Your task to perform on an android device: Show me popular videos on Youtube Image 0: 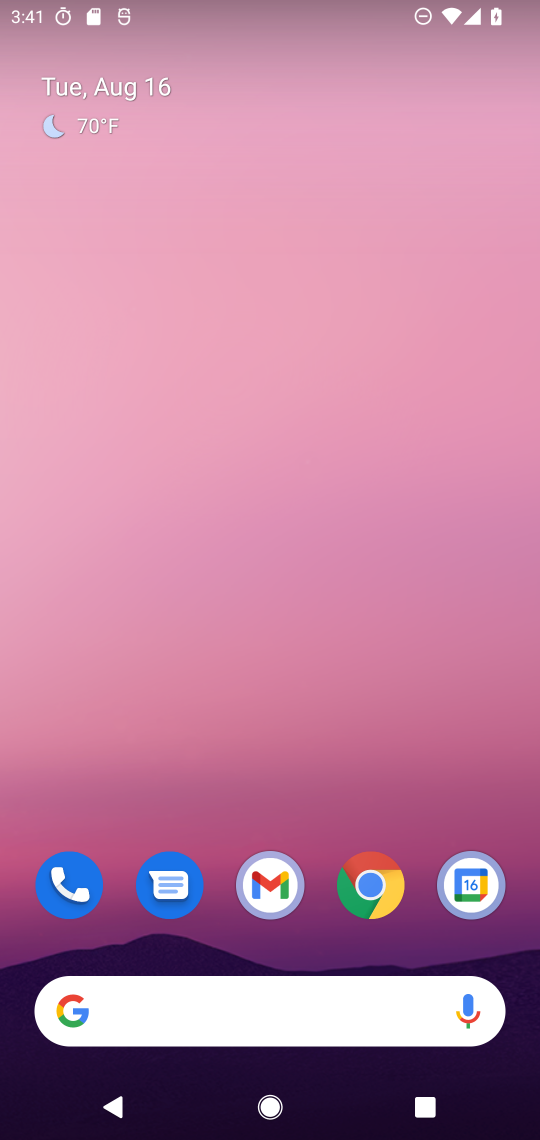
Step 0: drag from (216, 896) to (247, 435)
Your task to perform on an android device: Show me popular videos on Youtube Image 1: 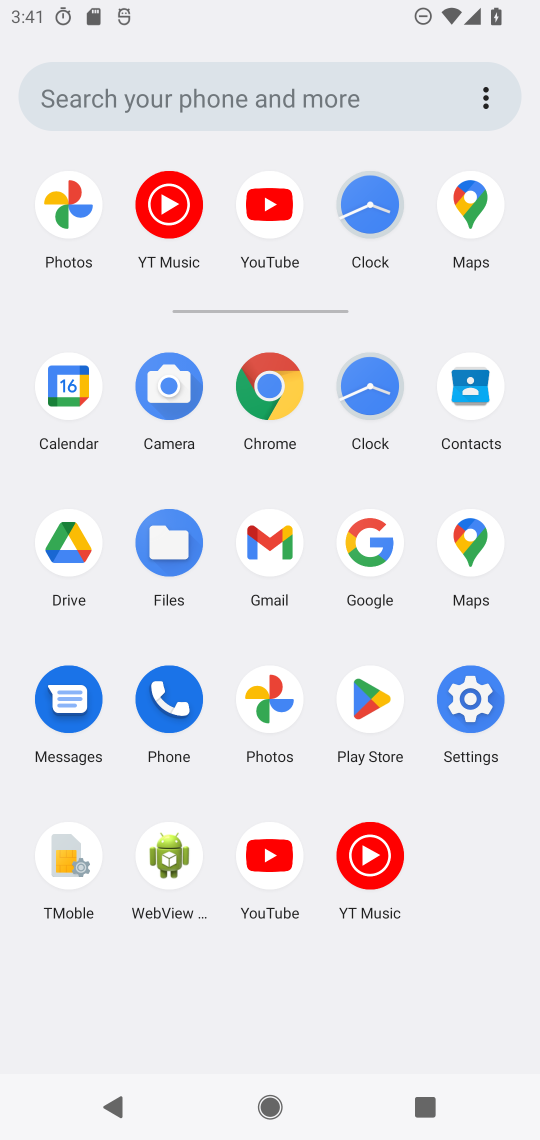
Step 1: click (270, 846)
Your task to perform on an android device: Show me popular videos on Youtube Image 2: 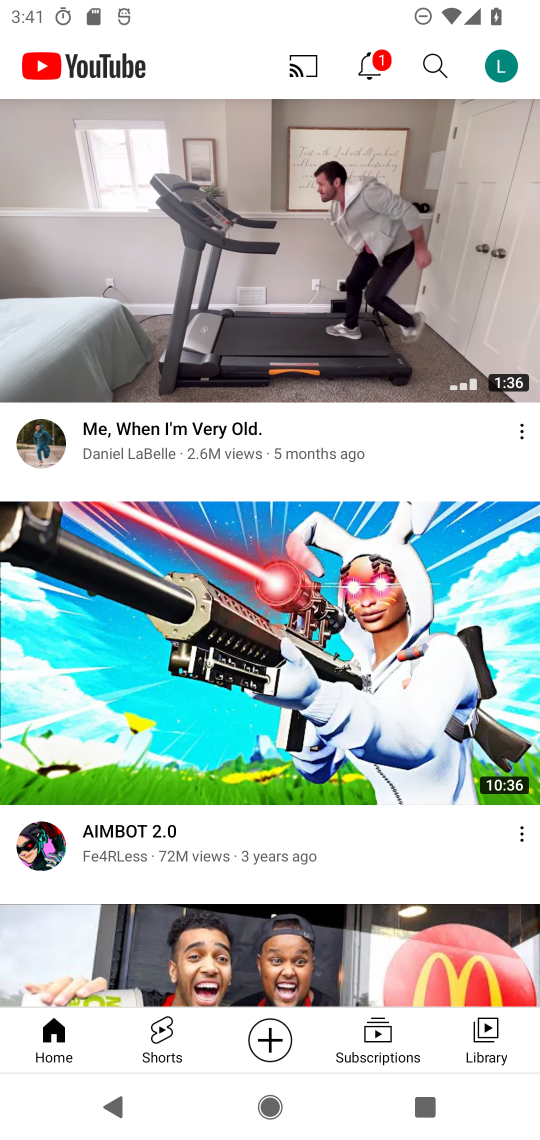
Step 2: click (428, 60)
Your task to perform on an android device: Show me popular videos on Youtube Image 3: 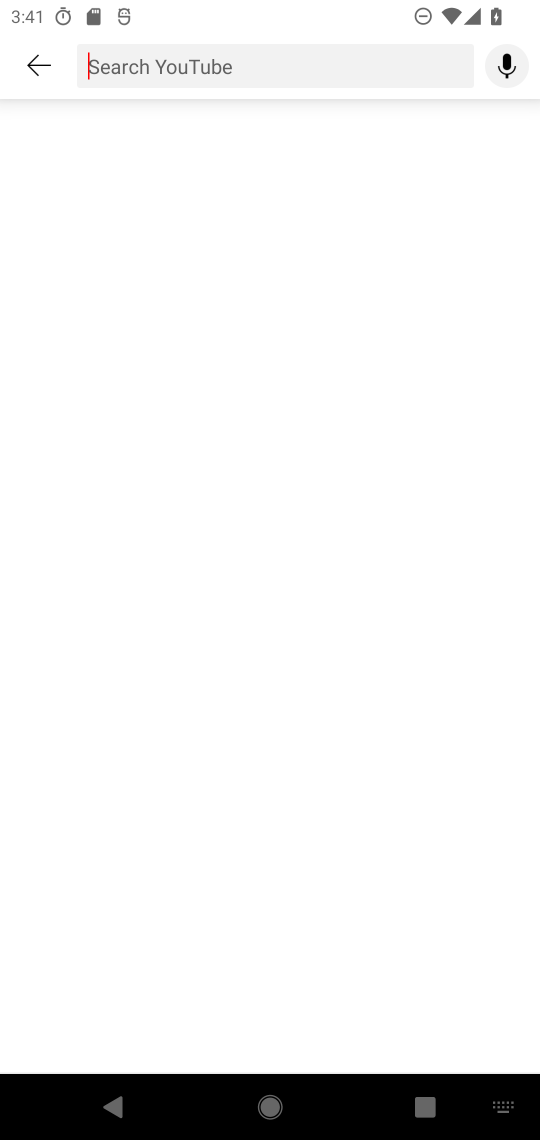
Step 3: type "india "
Your task to perform on an android device: Show me popular videos on Youtube Image 4: 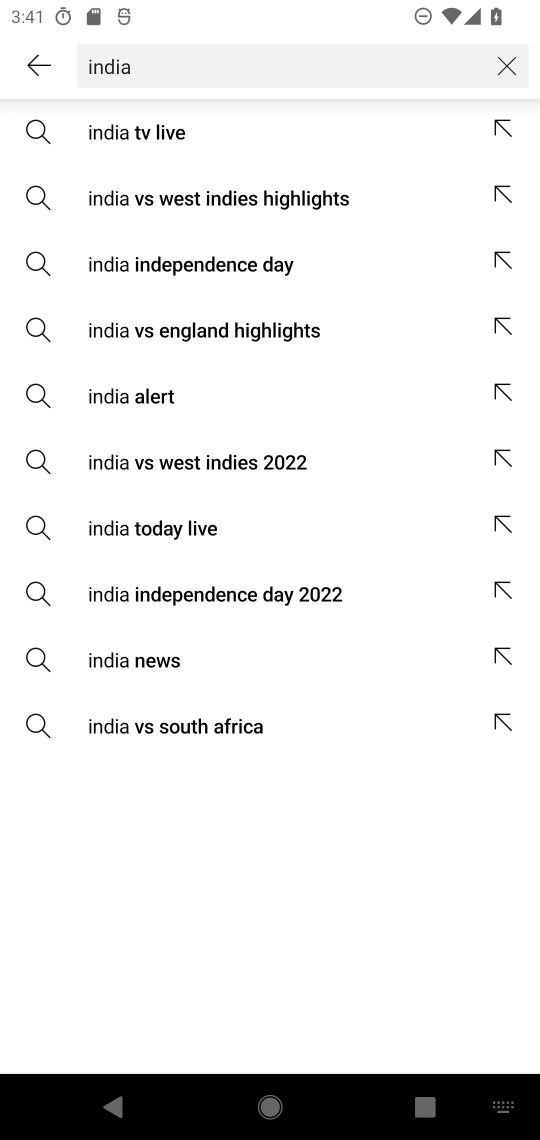
Step 4: click (198, 265)
Your task to perform on an android device: Show me popular videos on Youtube Image 5: 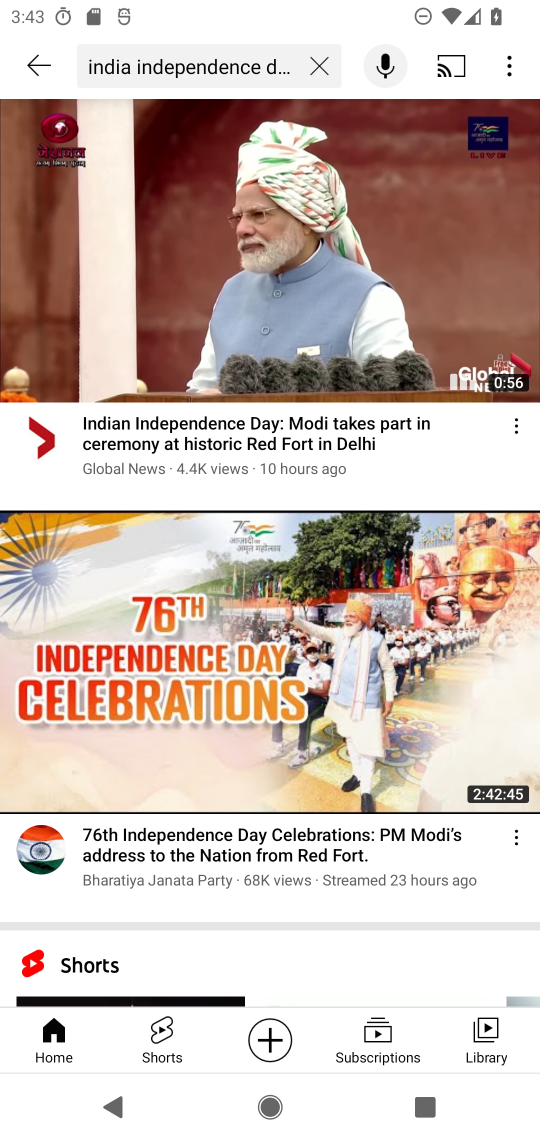
Step 5: task complete